Your task to perform on an android device: uninstall "Booking.com: Hotels and more" Image 0: 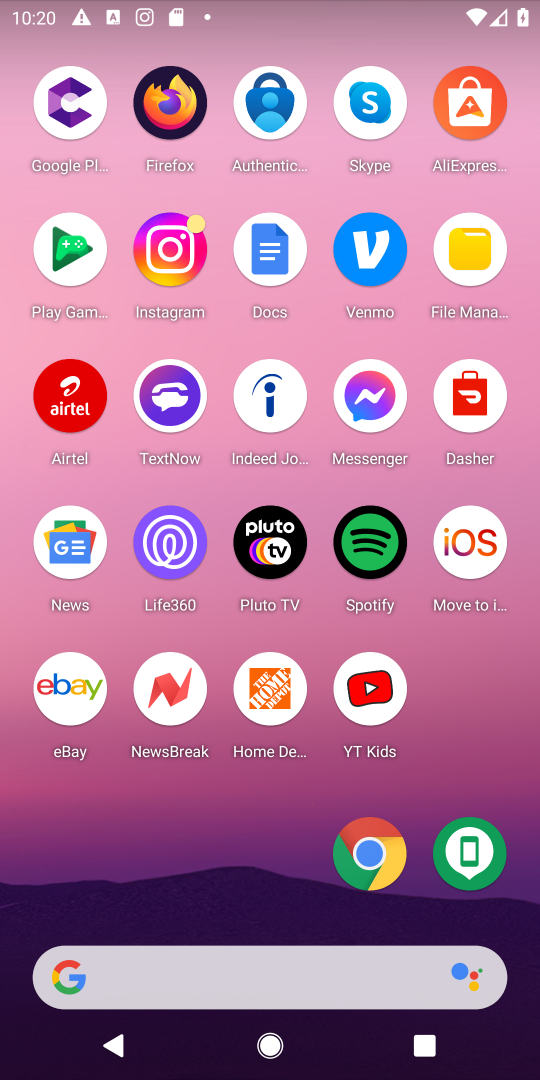
Step 0: drag from (287, 737) to (200, 228)
Your task to perform on an android device: uninstall "Booking.com: Hotels and more" Image 1: 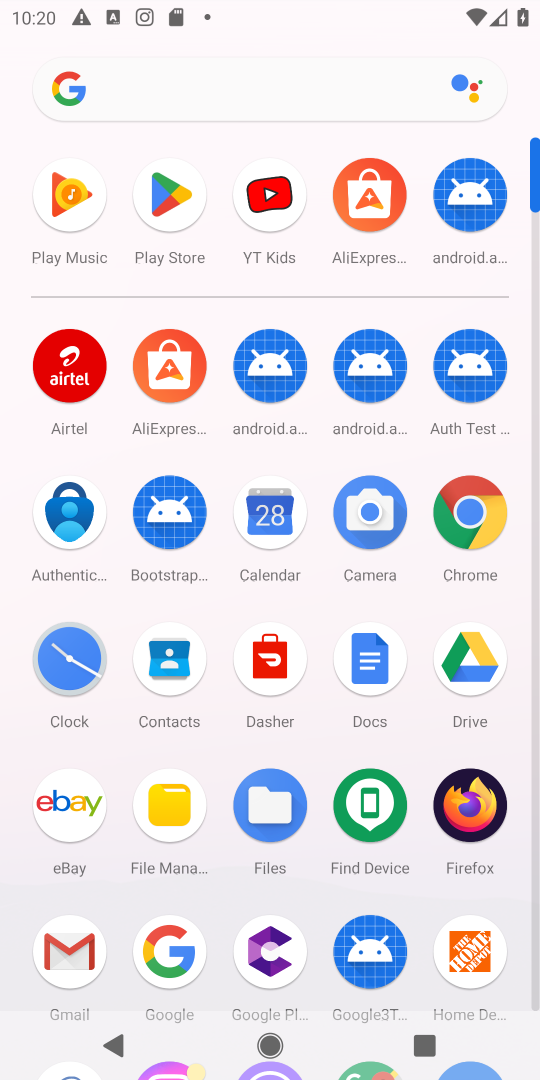
Step 1: click (163, 193)
Your task to perform on an android device: uninstall "Booking.com: Hotels and more" Image 2: 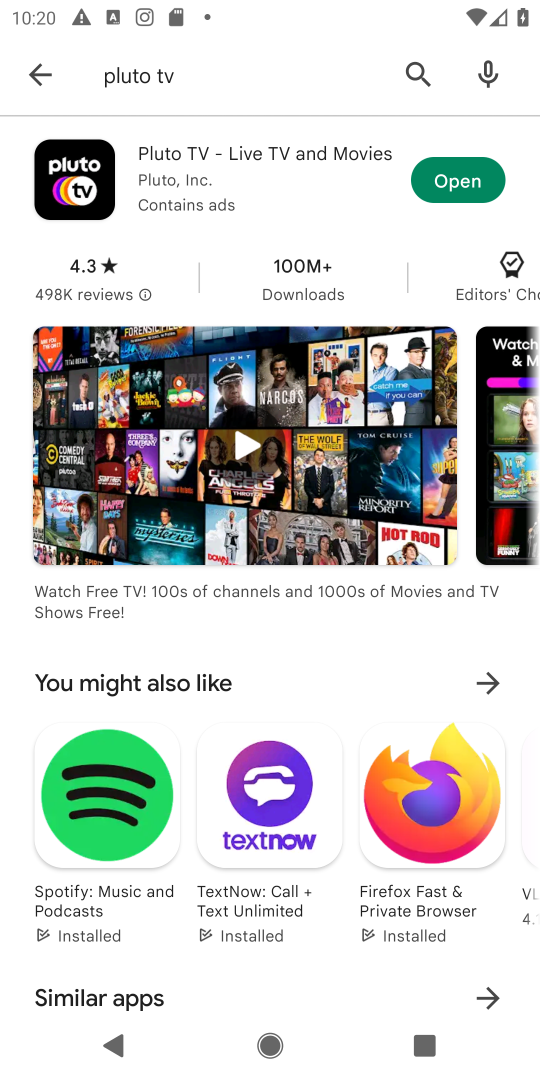
Step 2: click (39, 76)
Your task to perform on an android device: uninstall "Booking.com: Hotels and more" Image 3: 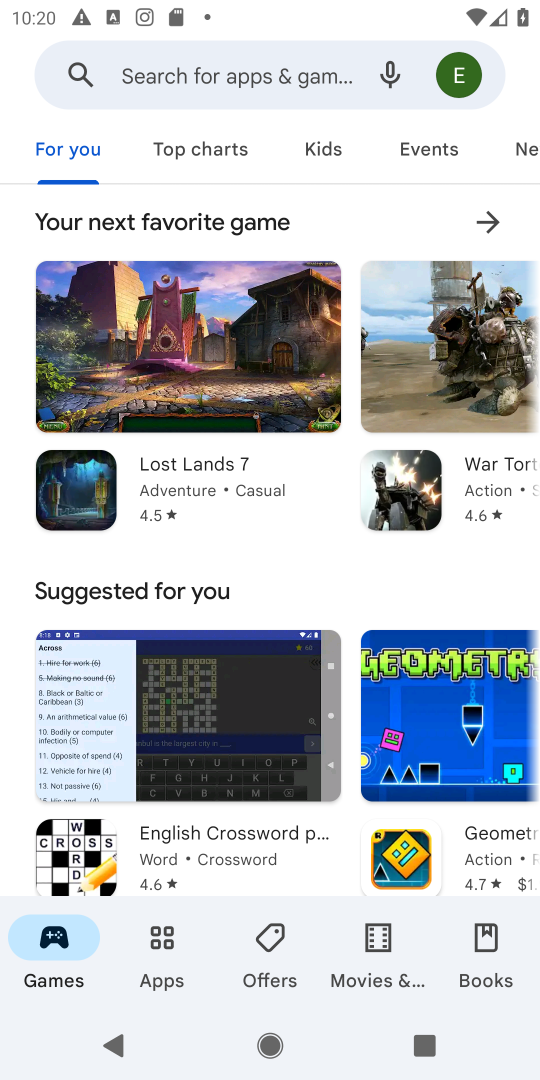
Step 3: click (224, 77)
Your task to perform on an android device: uninstall "Booking.com: Hotels and more" Image 4: 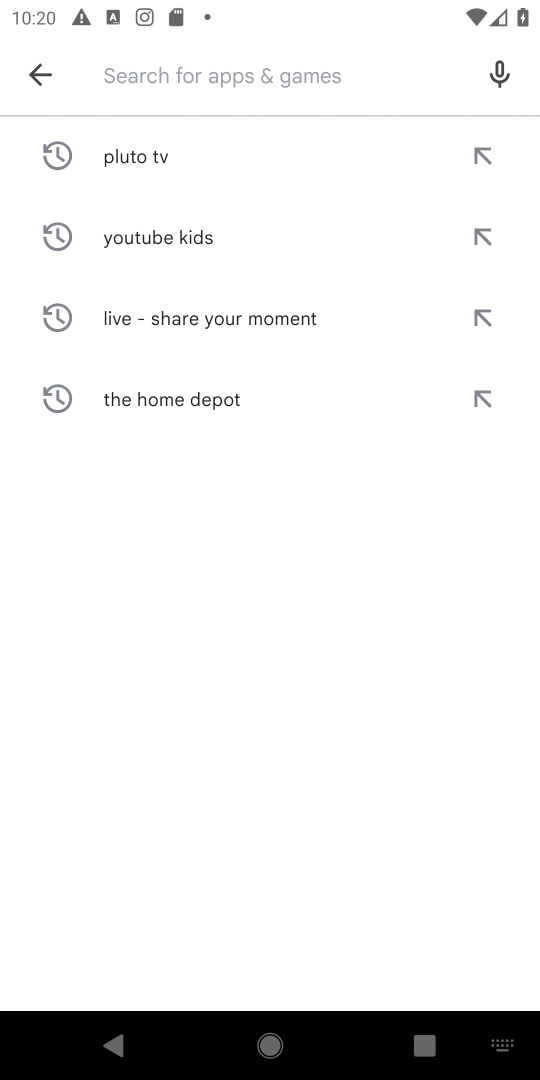
Step 4: type "Booking.com: Hotels and more"
Your task to perform on an android device: uninstall "Booking.com: Hotels and more" Image 5: 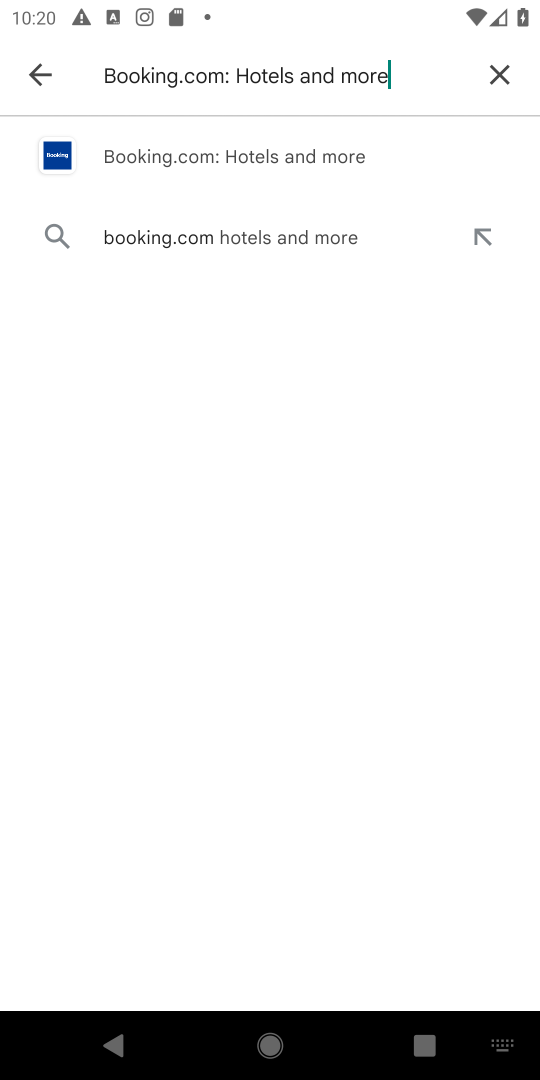
Step 5: click (166, 160)
Your task to perform on an android device: uninstall "Booking.com: Hotels and more" Image 6: 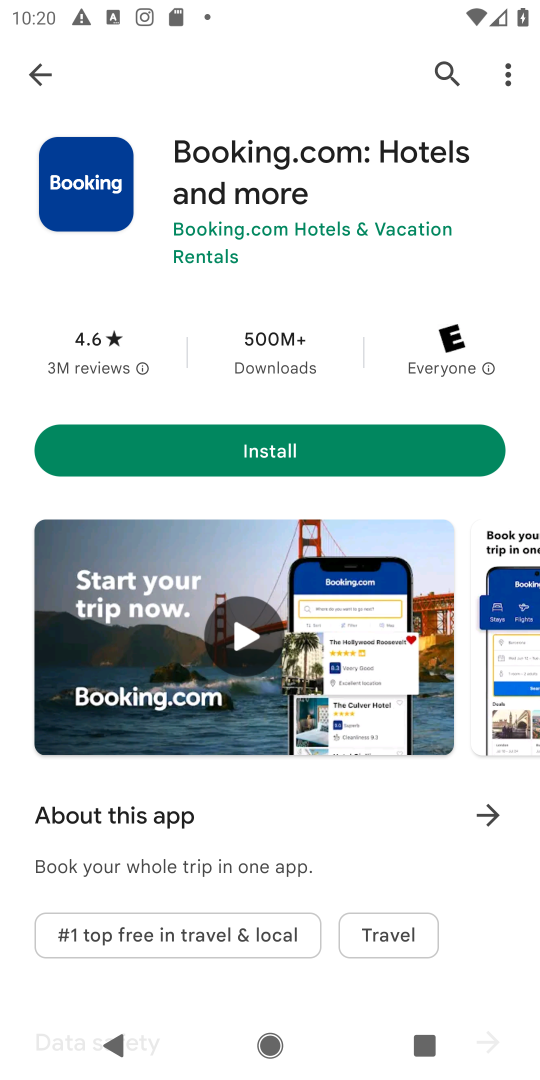
Step 6: task complete